Your task to perform on an android device: remove spam from my inbox in the gmail app Image 0: 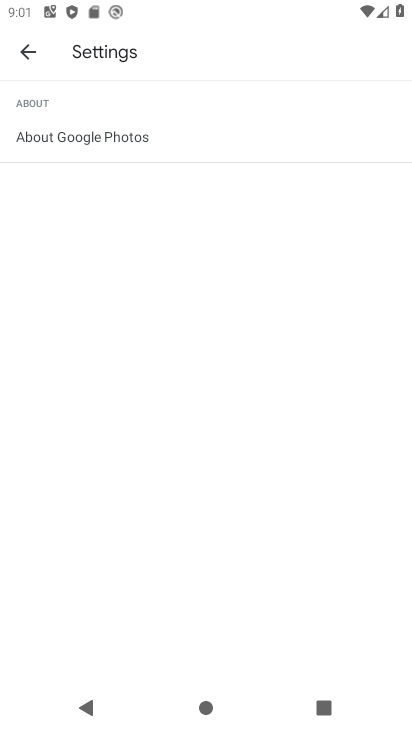
Step 0: press home button
Your task to perform on an android device: remove spam from my inbox in the gmail app Image 1: 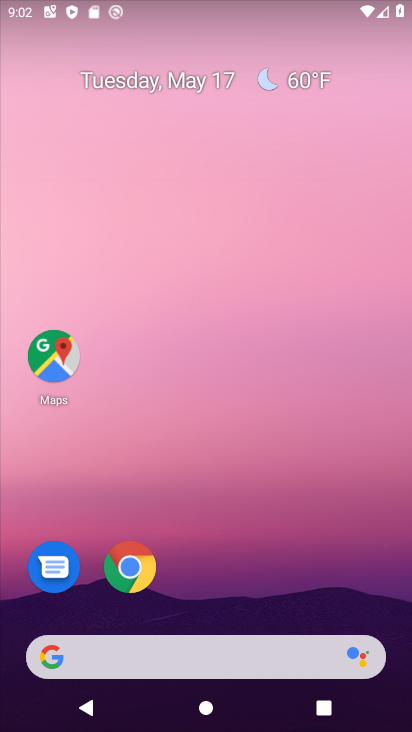
Step 1: drag from (189, 492) to (160, 10)
Your task to perform on an android device: remove spam from my inbox in the gmail app Image 2: 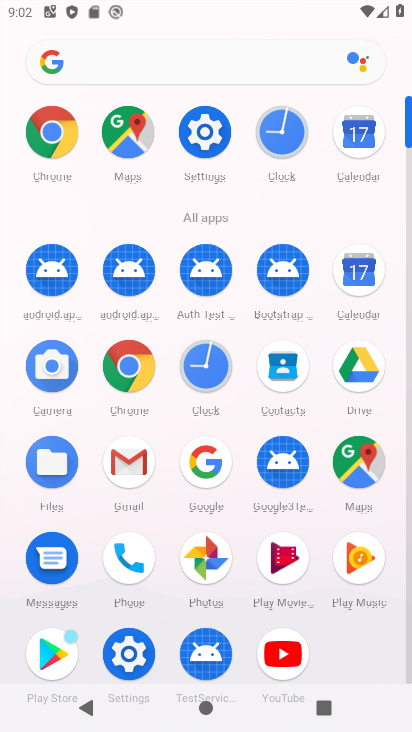
Step 2: click (130, 454)
Your task to perform on an android device: remove spam from my inbox in the gmail app Image 3: 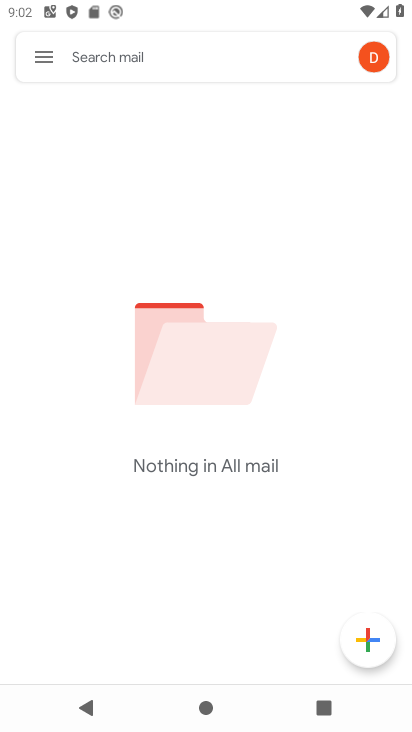
Step 3: click (32, 58)
Your task to perform on an android device: remove spam from my inbox in the gmail app Image 4: 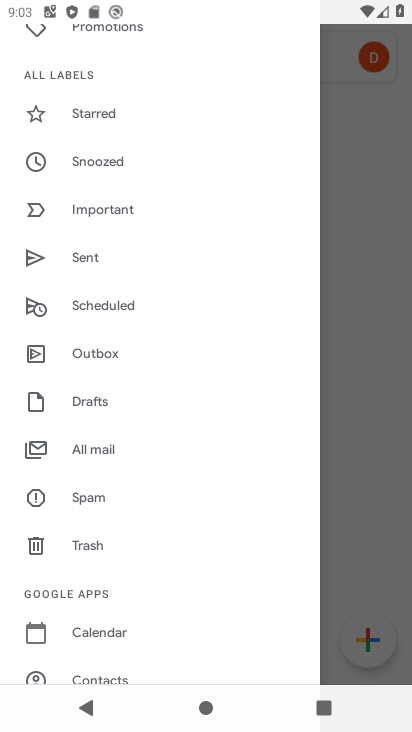
Step 4: drag from (162, 580) to (118, 383)
Your task to perform on an android device: remove spam from my inbox in the gmail app Image 5: 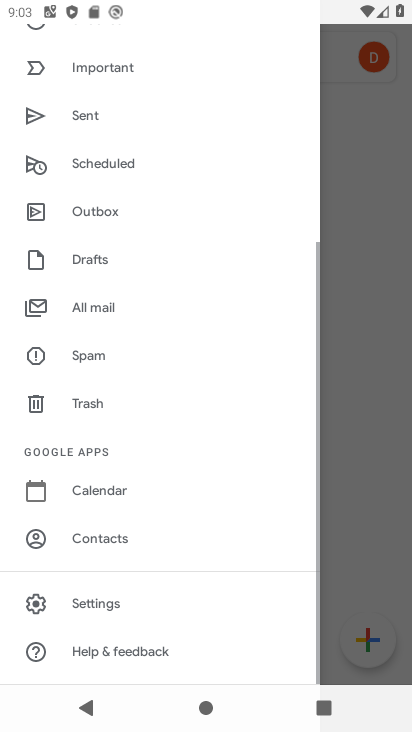
Step 5: click (92, 353)
Your task to perform on an android device: remove spam from my inbox in the gmail app Image 6: 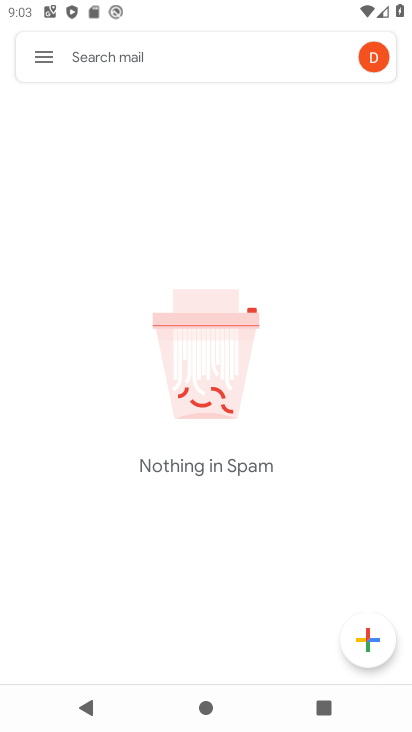
Step 6: task complete